Your task to perform on an android device: turn vacation reply on in the gmail app Image 0: 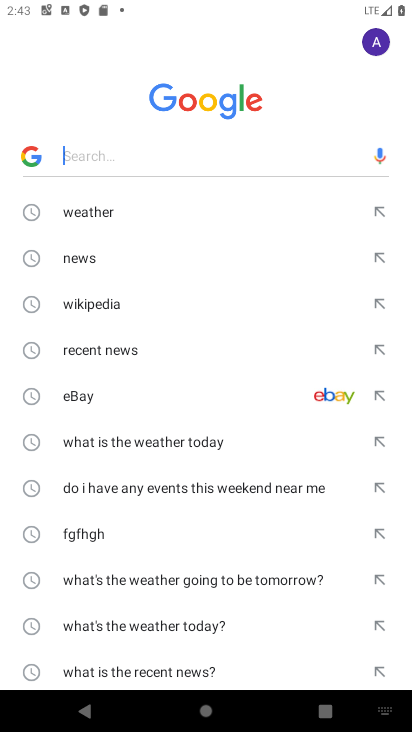
Step 0: press home button
Your task to perform on an android device: turn vacation reply on in the gmail app Image 1: 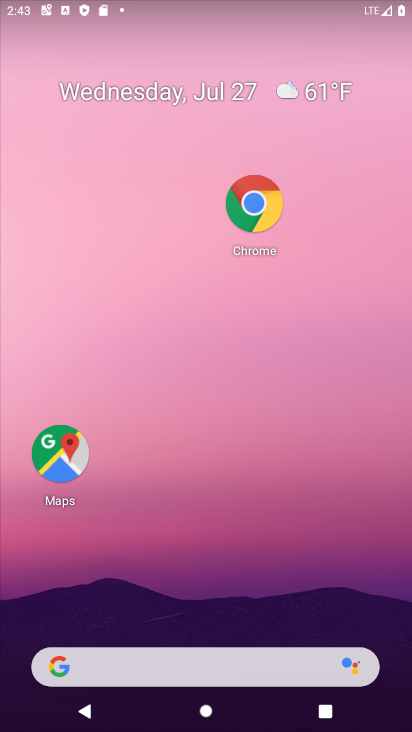
Step 1: drag from (203, 583) to (205, 159)
Your task to perform on an android device: turn vacation reply on in the gmail app Image 2: 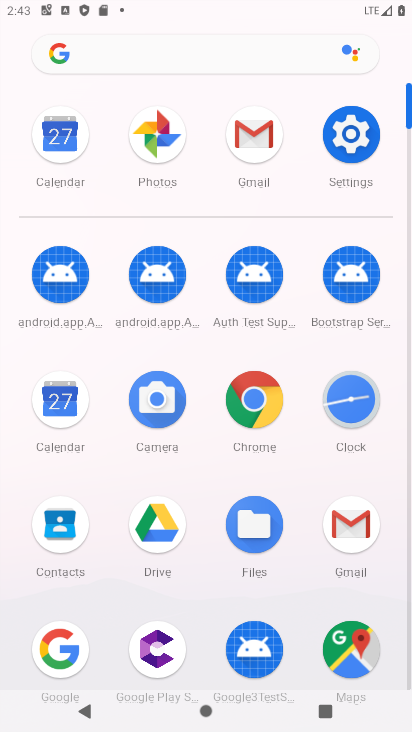
Step 2: click (239, 165)
Your task to perform on an android device: turn vacation reply on in the gmail app Image 3: 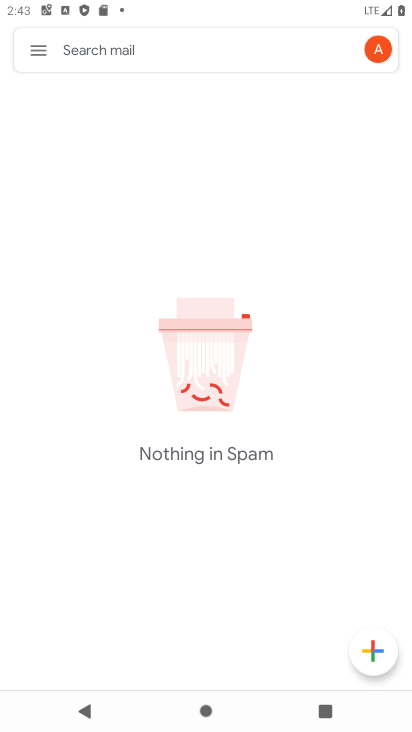
Step 3: click (37, 52)
Your task to perform on an android device: turn vacation reply on in the gmail app Image 4: 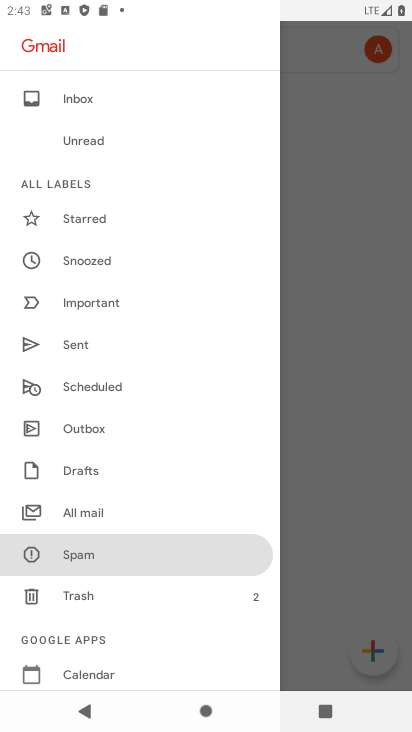
Step 4: drag from (92, 643) to (178, 257)
Your task to perform on an android device: turn vacation reply on in the gmail app Image 5: 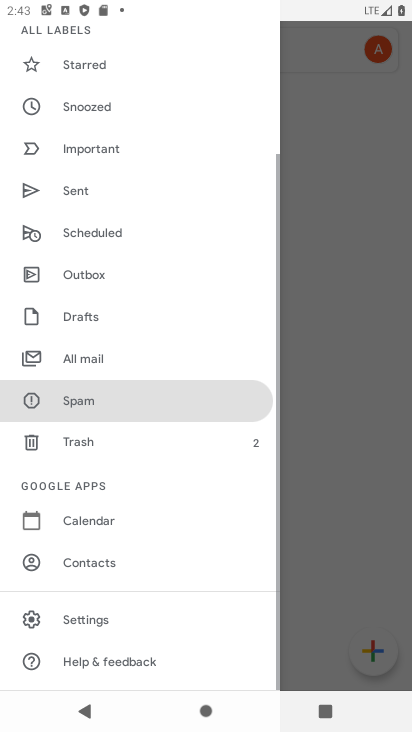
Step 5: click (119, 612)
Your task to perform on an android device: turn vacation reply on in the gmail app Image 6: 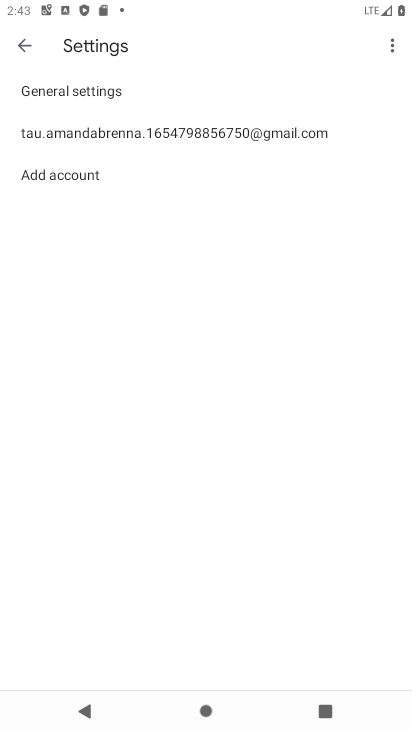
Step 6: click (188, 147)
Your task to perform on an android device: turn vacation reply on in the gmail app Image 7: 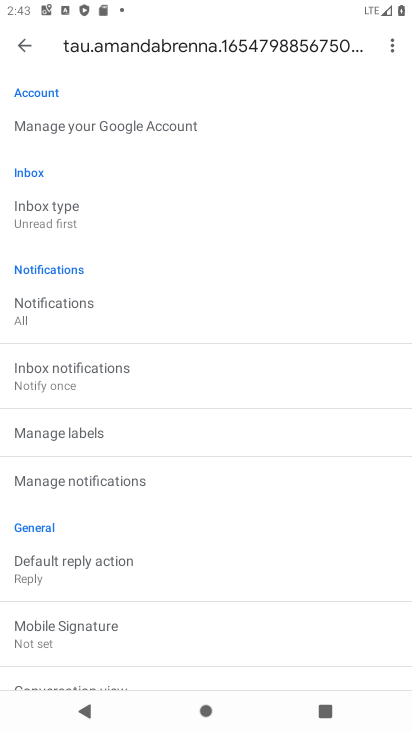
Step 7: drag from (123, 586) to (172, 279)
Your task to perform on an android device: turn vacation reply on in the gmail app Image 8: 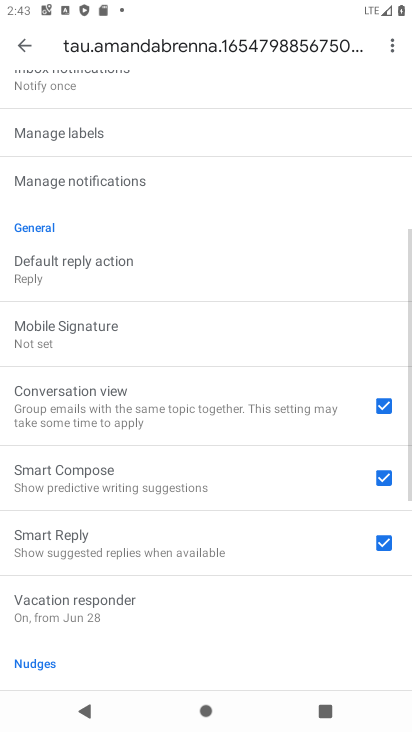
Step 8: click (126, 604)
Your task to perform on an android device: turn vacation reply on in the gmail app Image 9: 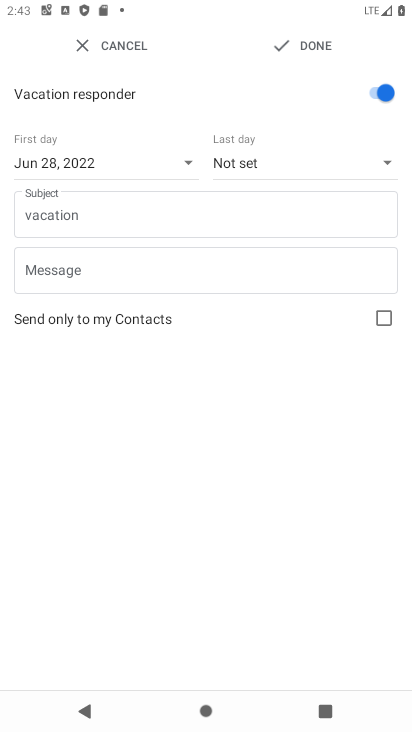
Step 9: task complete